Your task to perform on an android device: Open CNN.com Image 0: 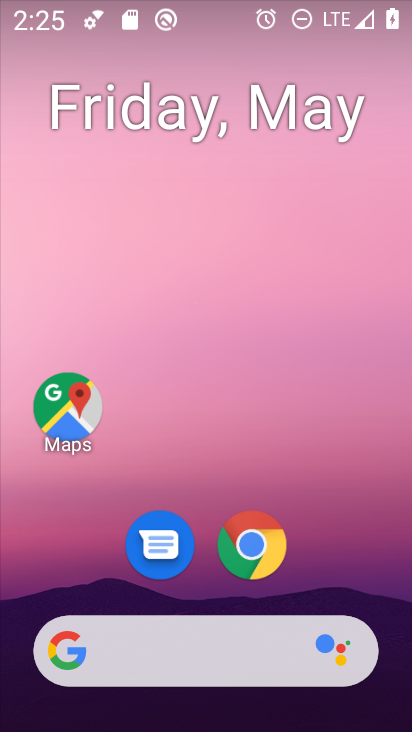
Step 0: click (244, 536)
Your task to perform on an android device: Open CNN.com Image 1: 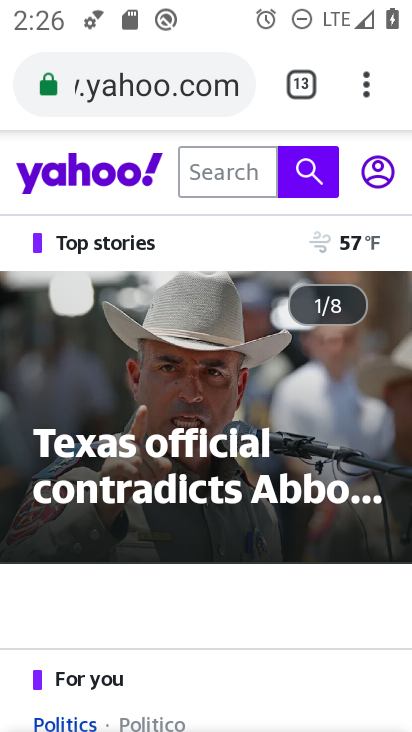
Step 1: click (376, 75)
Your task to perform on an android device: Open CNN.com Image 2: 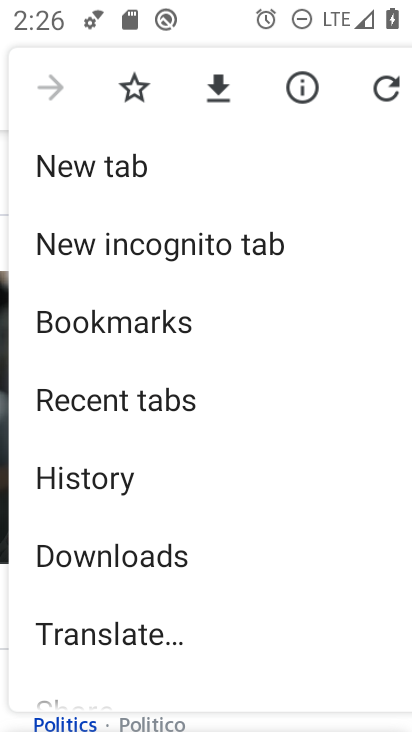
Step 2: click (169, 154)
Your task to perform on an android device: Open CNN.com Image 3: 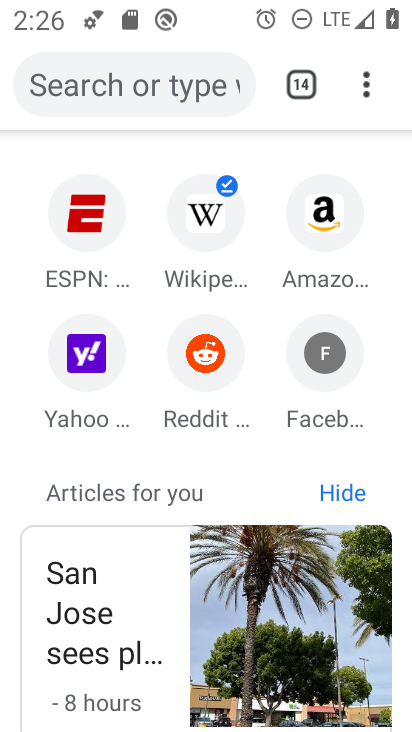
Step 3: click (166, 78)
Your task to perform on an android device: Open CNN.com Image 4: 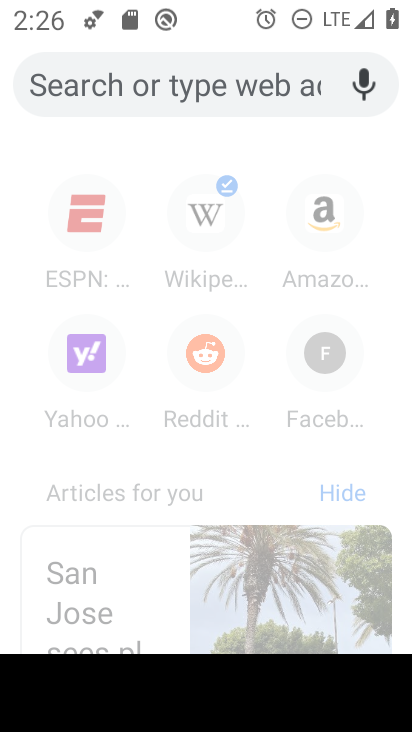
Step 4: type "CNN.com"
Your task to perform on an android device: Open CNN.com Image 5: 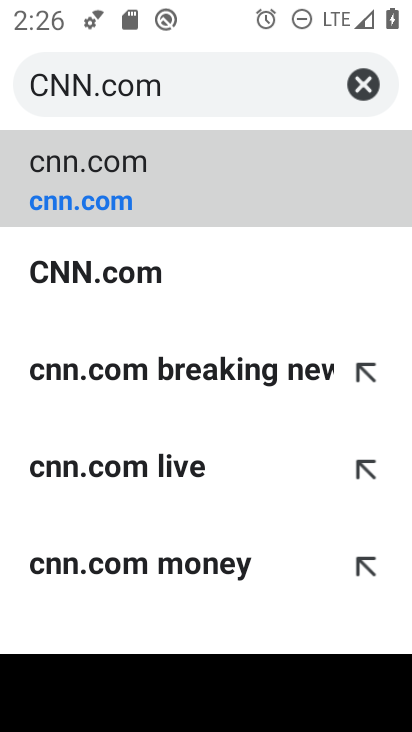
Step 5: click (129, 175)
Your task to perform on an android device: Open CNN.com Image 6: 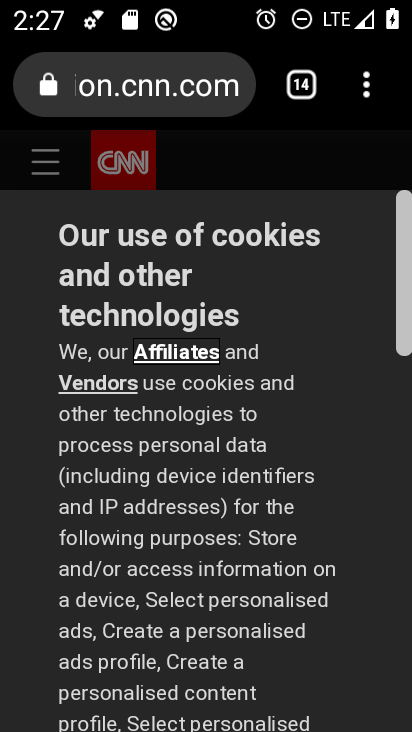
Step 6: task complete